Your task to perform on an android device: turn on the 24-hour format for clock Image 0: 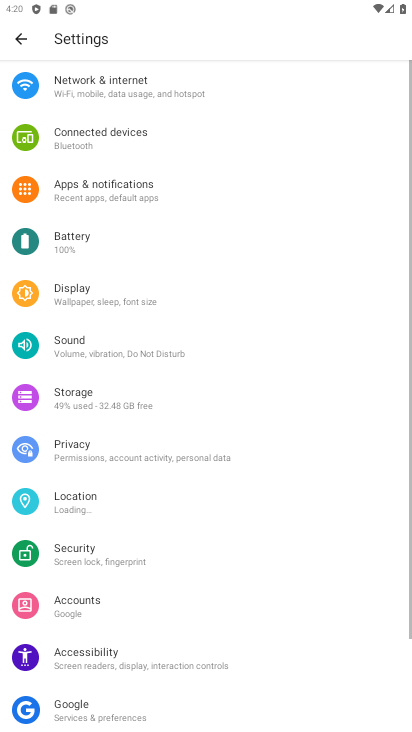
Step 0: press home button
Your task to perform on an android device: turn on the 24-hour format for clock Image 1: 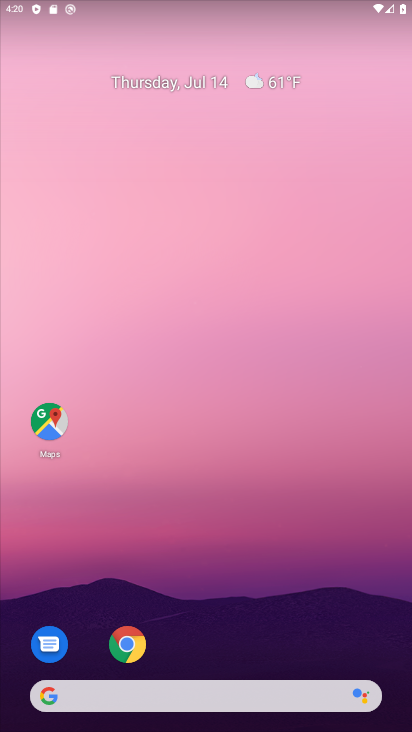
Step 1: drag from (238, 615) to (338, 24)
Your task to perform on an android device: turn on the 24-hour format for clock Image 2: 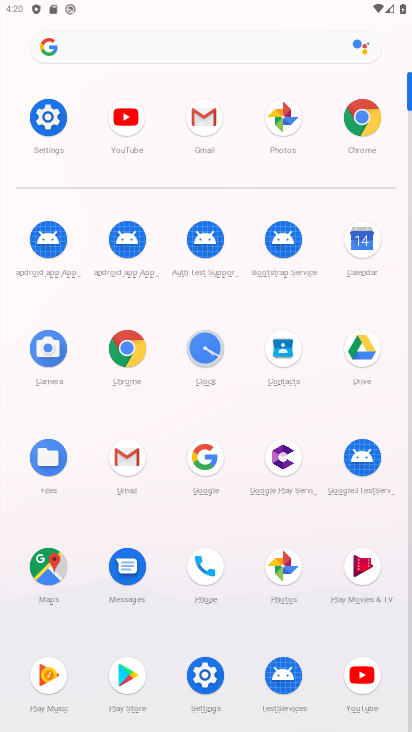
Step 2: press home button
Your task to perform on an android device: turn on the 24-hour format for clock Image 3: 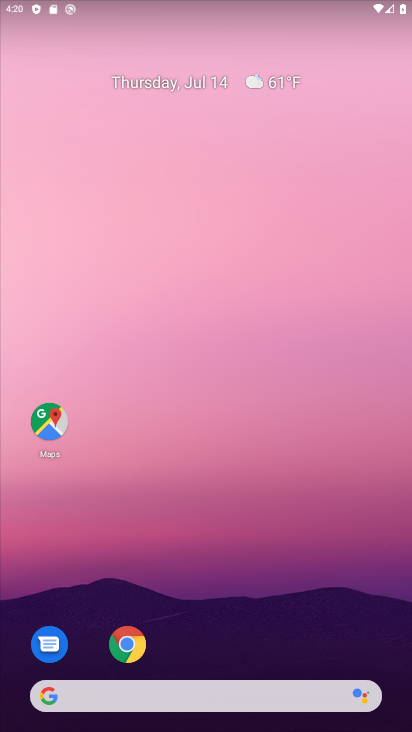
Step 3: drag from (326, 681) to (302, 7)
Your task to perform on an android device: turn on the 24-hour format for clock Image 4: 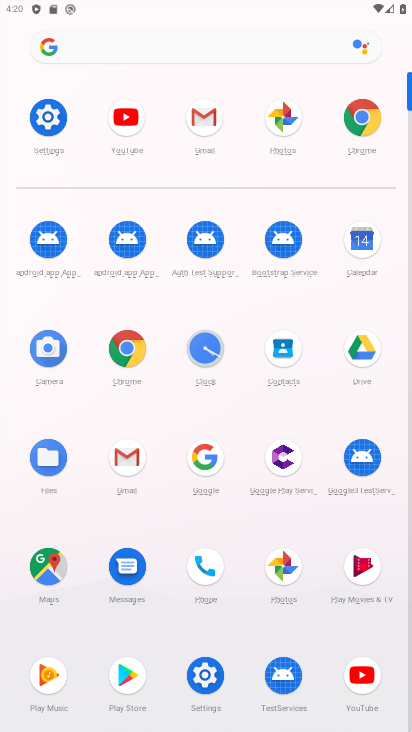
Step 4: click (198, 361)
Your task to perform on an android device: turn on the 24-hour format for clock Image 5: 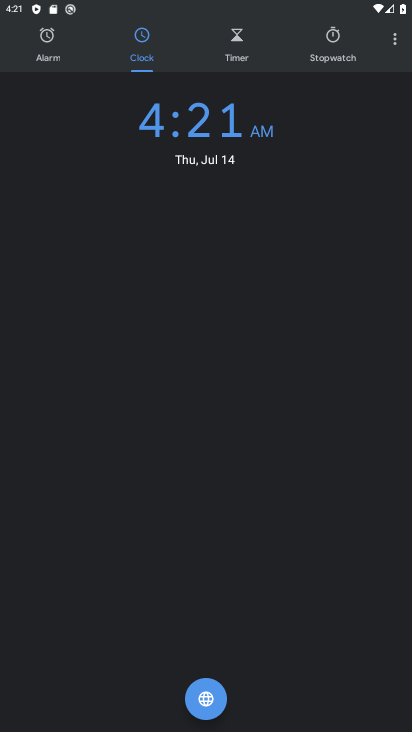
Step 5: click (388, 46)
Your task to perform on an android device: turn on the 24-hour format for clock Image 6: 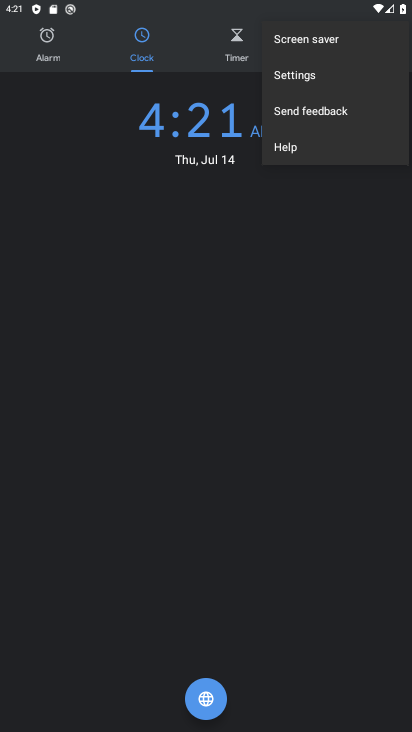
Step 6: click (285, 78)
Your task to perform on an android device: turn on the 24-hour format for clock Image 7: 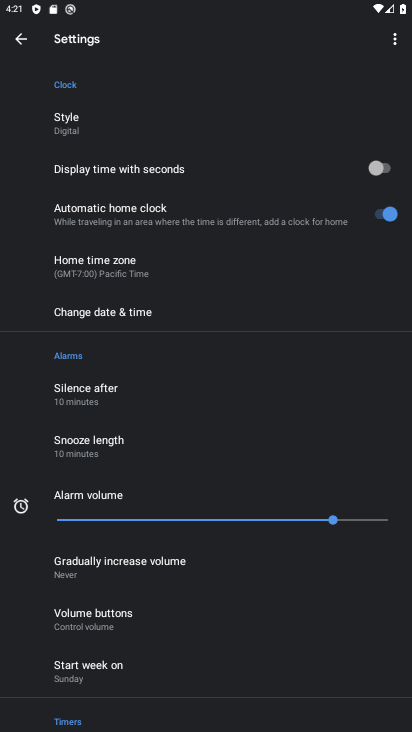
Step 7: click (65, 317)
Your task to perform on an android device: turn on the 24-hour format for clock Image 8: 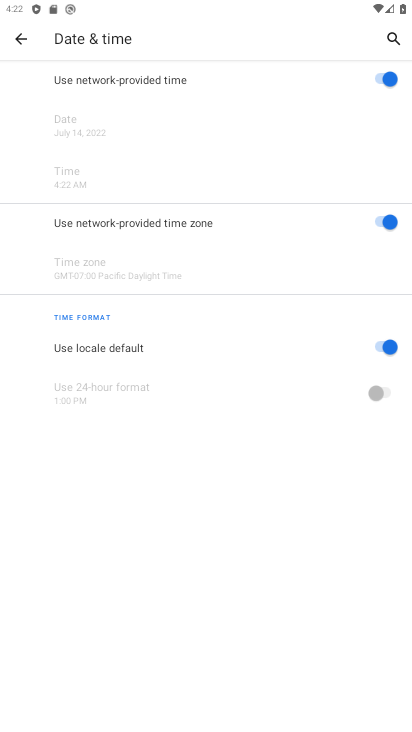
Step 8: click (327, 333)
Your task to perform on an android device: turn on the 24-hour format for clock Image 9: 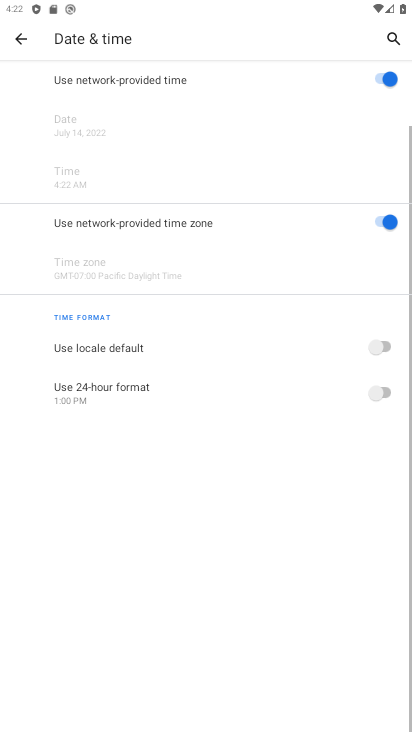
Step 9: click (292, 402)
Your task to perform on an android device: turn on the 24-hour format for clock Image 10: 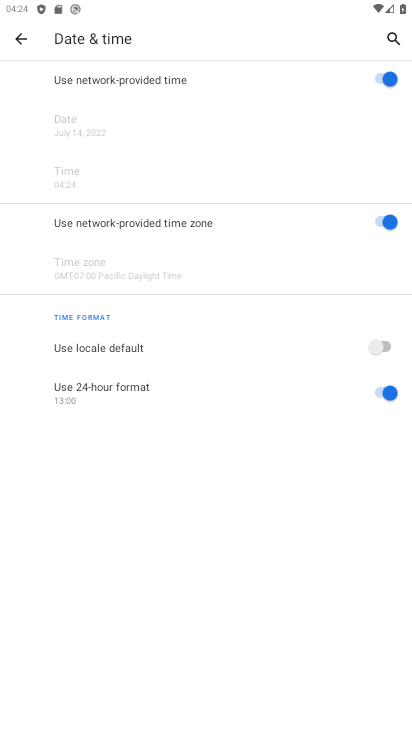
Step 10: task complete